Your task to perform on an android device: turn on improve location accuracy Image 0: 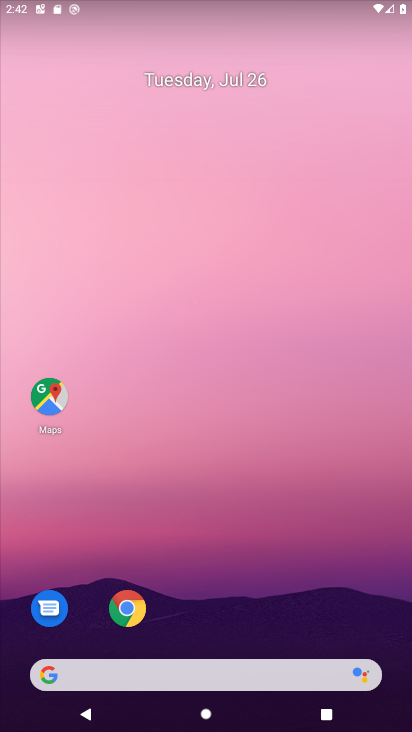
Step 0: press home button
Your task to perform on an android device: turn on improve location accuracy Image 1: 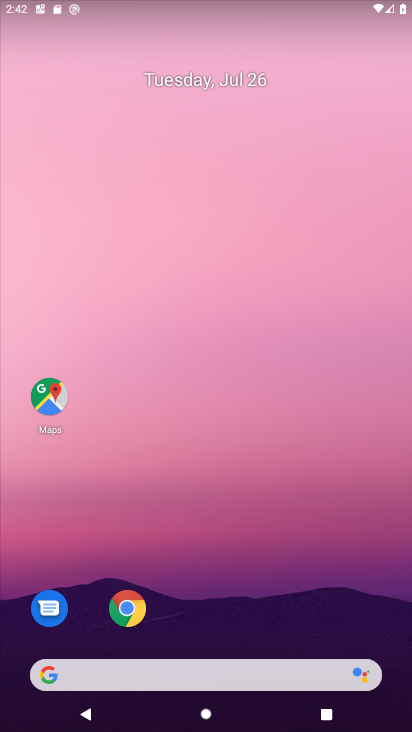
Step 1: drag from (298, 505) to (238, 170)
Your task to perform on an android device: turn on improve location accuracy Image 2: 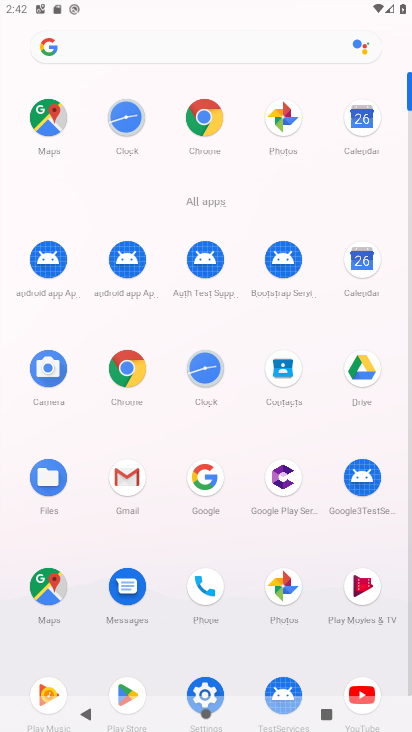
Step 2: click (208, 685)
Your task to perform on an android device: turn on improve location accuracy Image 3: 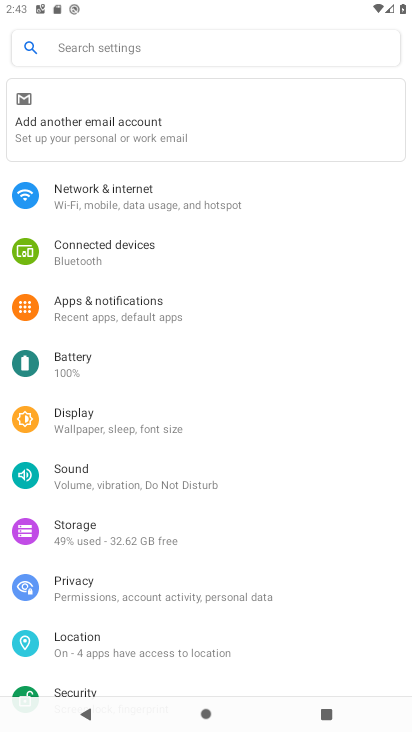
Step 3: drag from (204, 515) to (184, 184)
Your task to perform on an android device: turn on improve location accuracy Image 4: 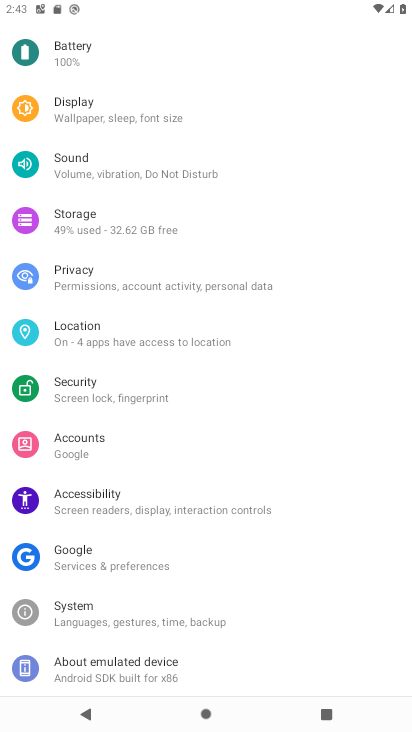
Step 4: click (90, 344)
Your task to perform on an android device: turn on improve location accuracy Image 5: 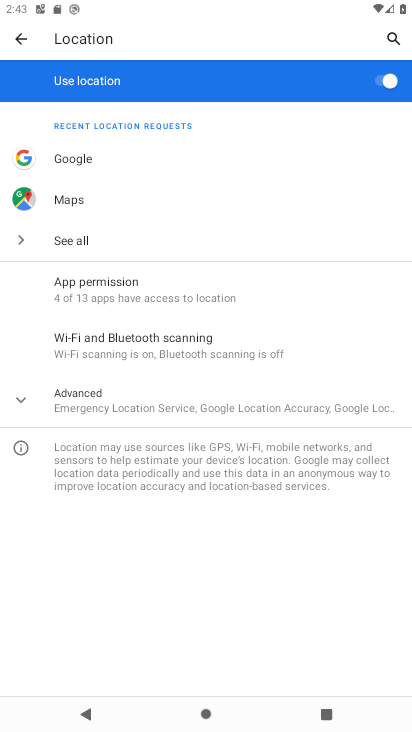
Step 5: click (149, 392)
Your task to perform on an android device: turn on improve location accuracy Image 6: 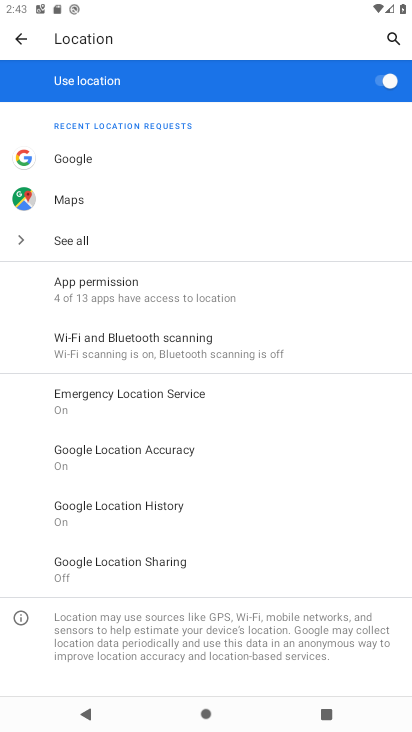
Step 6: click (169, 455)
Your task to perform on an android device: turn on improve location accuracy Image 7: 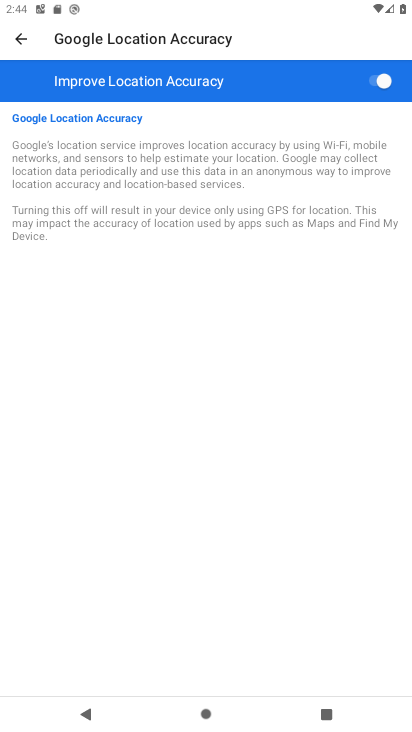
Step 7: task complete